Your task to perform on an android device: Go to CNN.com Image 0: 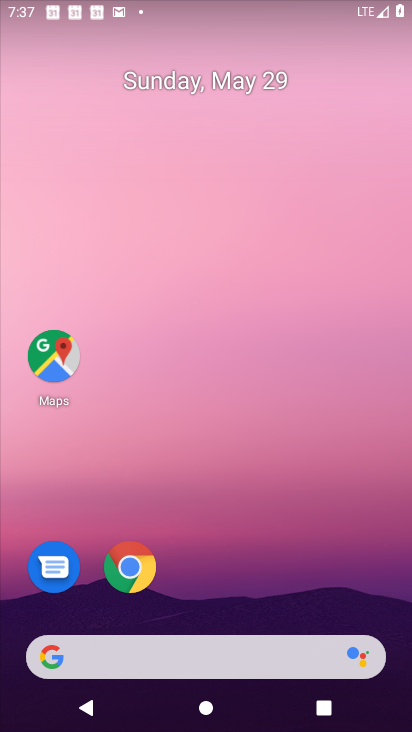
Step 0: click (142, 563)
Your task to perform on an android device: Go to CNN.com Image 1: 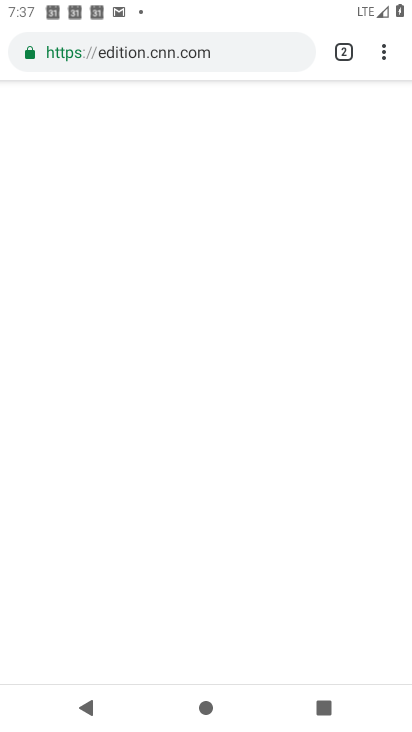
Step 1: click (339, 47)
Your task to perform on an android device: Go to CNN.com Image 2: 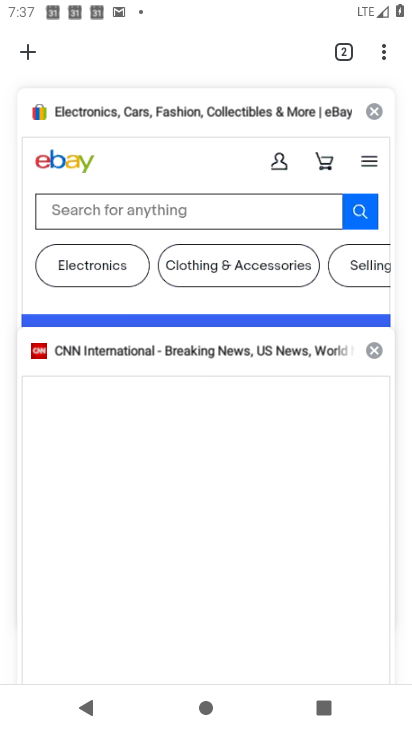
Step 2: drag from (152, 208) to (176, 296)
Your task to perform on an android device: Go to CNN.com Image 3: 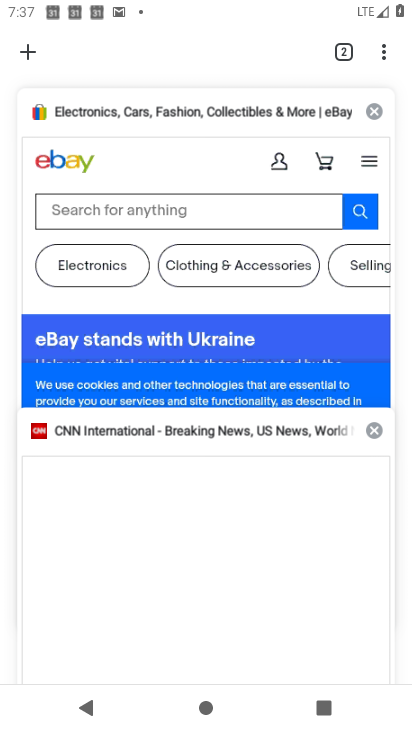
Step 3: click (141, 493)
Your task to perform on an android device: Go to CNN.com Image 4: 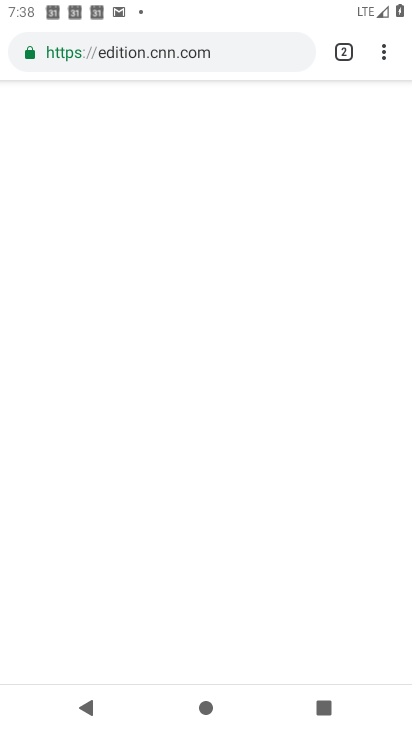
Step 4: click (223, 42)
Your task to perform on an android device: Go to CNN.com Image 5: 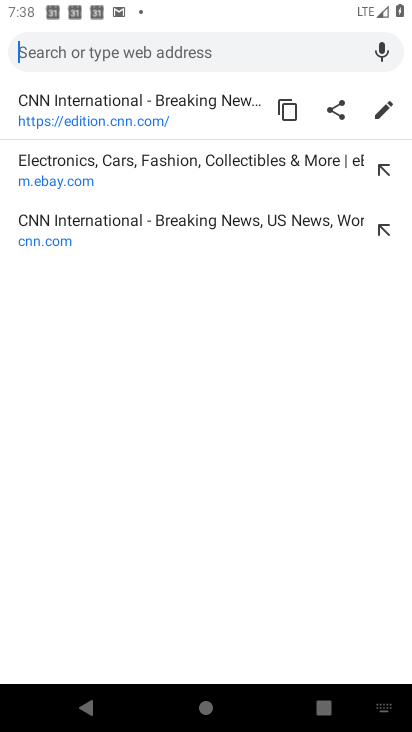
Step 5: click (121, 107)
Your task to perform on an android device: Go to CNN.com Image 6: 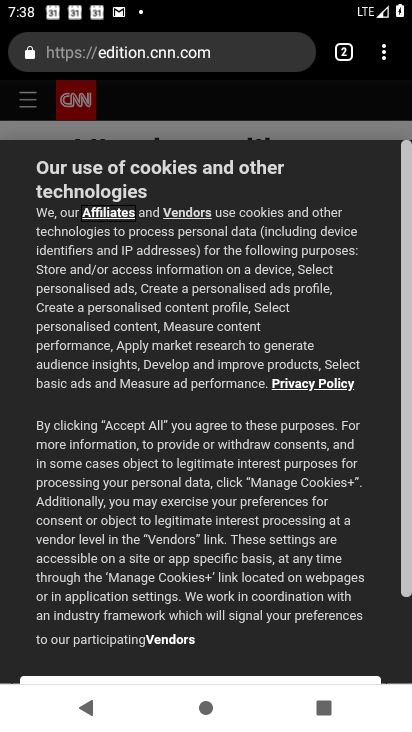
Step 6: task complete